Your task to perform on an android device: Go to calendar. Show me events next week Image 0: 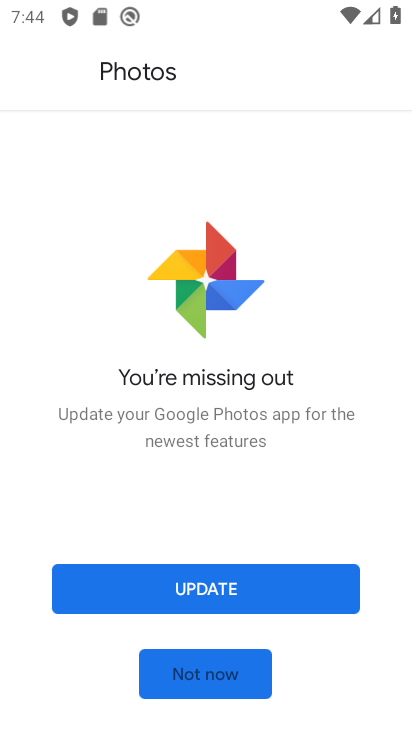
Step 0: press home button
Your task to perform on an android device: Go to calendar. Show me events next week Image 1: 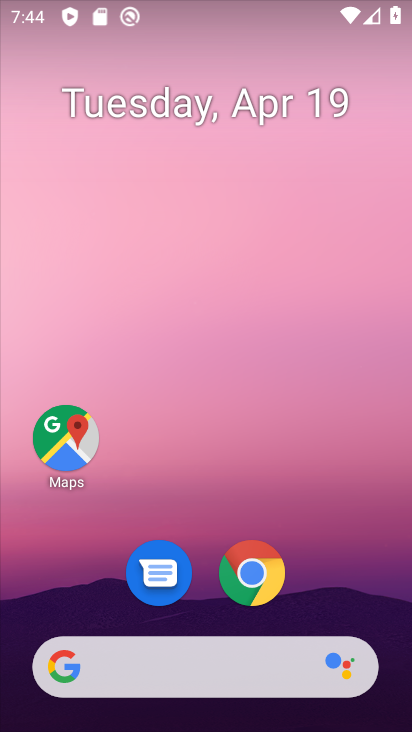
Step 1: drag from (353, 594) to (257, 176)
Your task to perform on an android device: Go to calendar. Show me events next week Image 2: 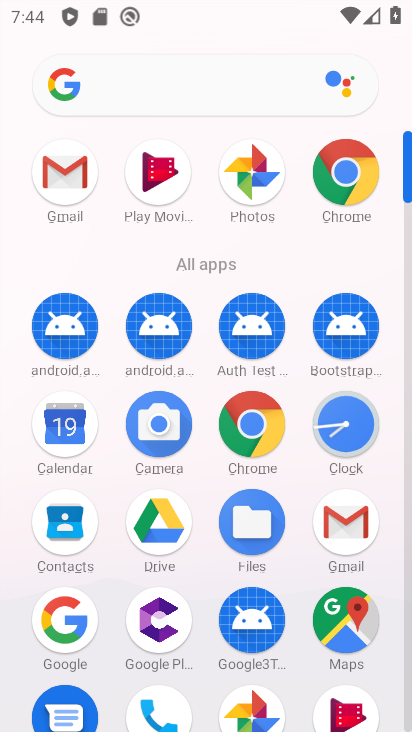
Step 2: click (62, 444)
Your task to perform on an android device: Go to calendar. Show me events next week Image 3: 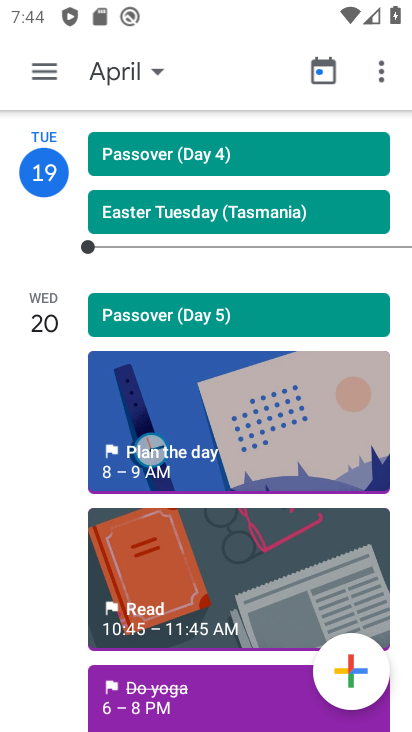
Step 3: click (125, 68)
Your task to perform on an android device: Go to calendar. Show me events next week Image 4: 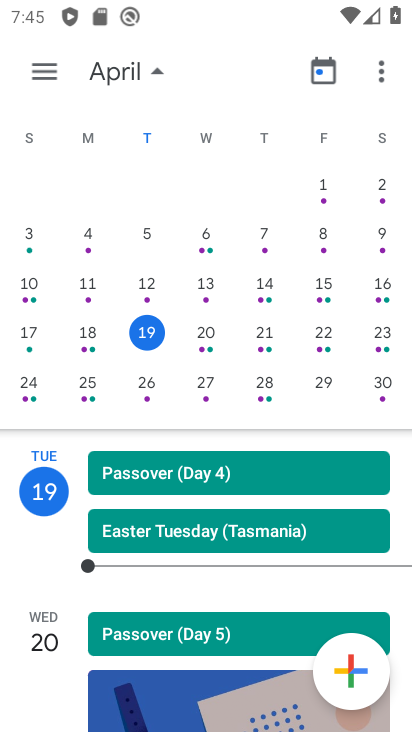
Step 4: click (143, 384)
Your task to perform on an android device: Go to calendar. Show me events next week Image 5: 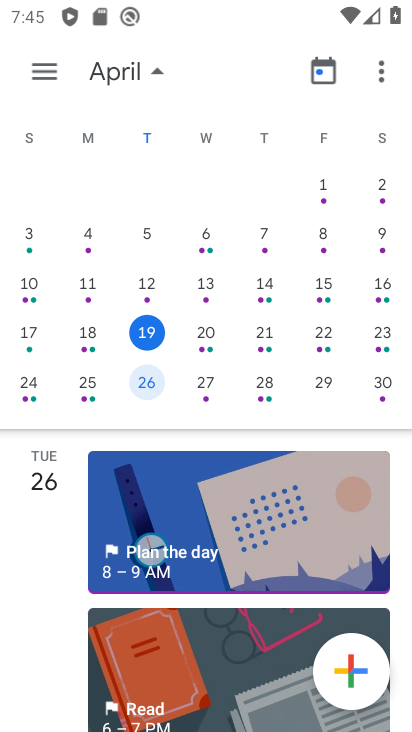
Step 5: task complete